Your task to perform on an android device: toggle location history Image 0: 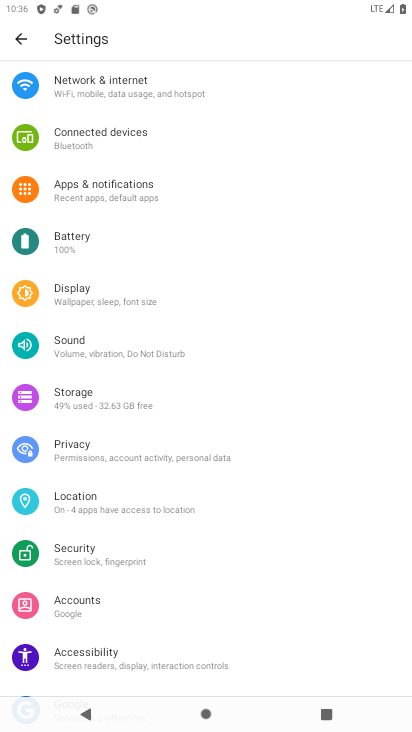
Step 0: click (90, 494)
Your task to perform on an android device: toggle location history Image 1: 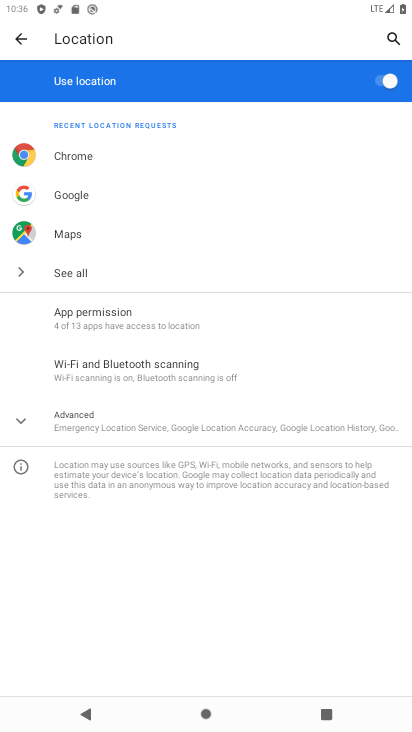
Step 1: click (91, 416)
Your task to perform on an android device: toggle location history Image 2: 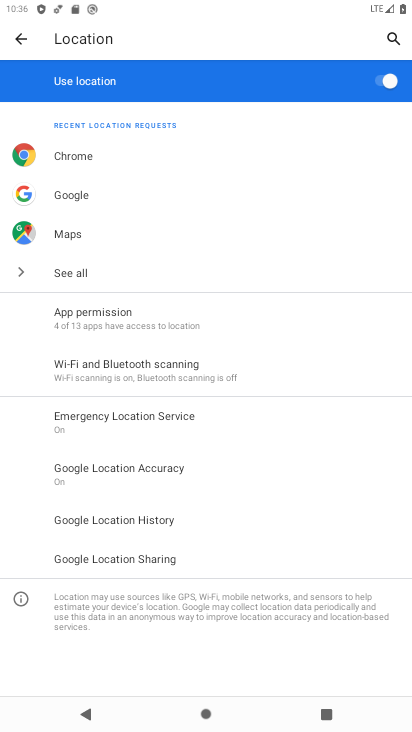
Step 2: click (168, 516)
Your task to perform on an android device: toggle location history Image 3: 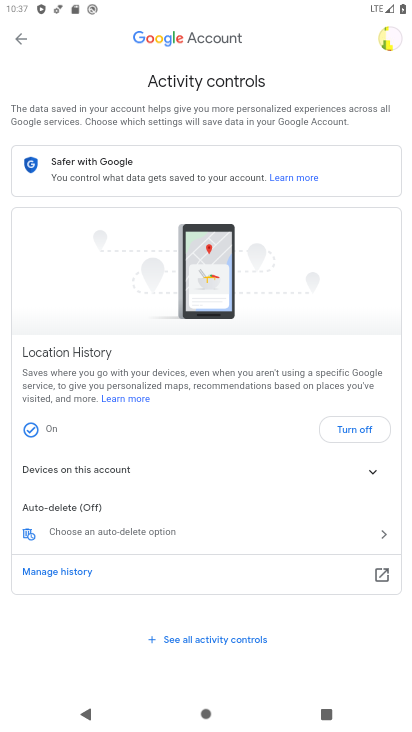
Step 3: click (339, 431)
Your task to perform on an android device: toggle location history Image 4: 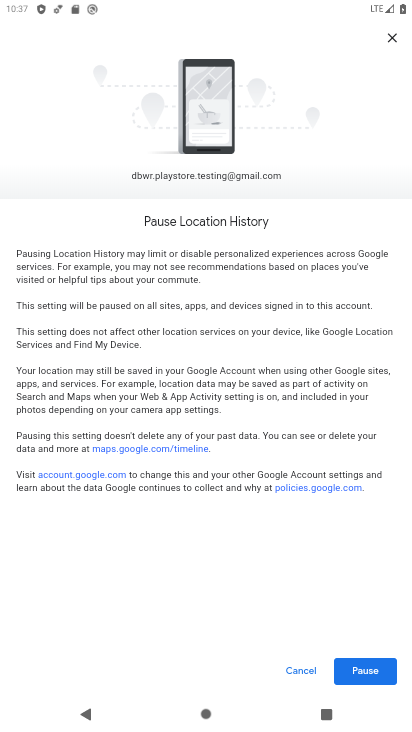
Step 4: click (360, 681)
Your task to perform on an android device: toggle location history Image 5: 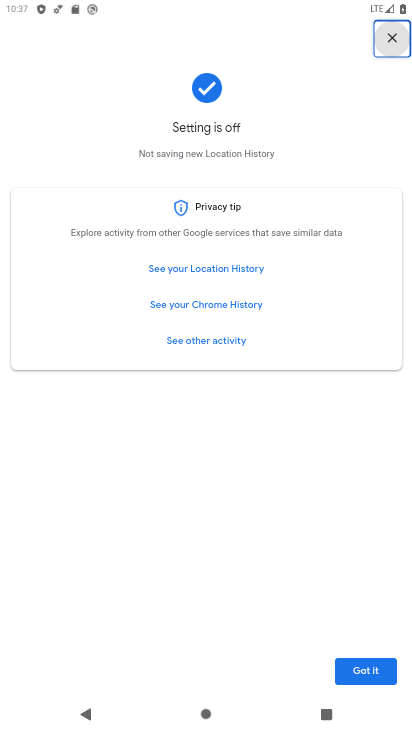
Step 5: click (360, 681)
Your task to perform on an android device: toggle location history Image 6: 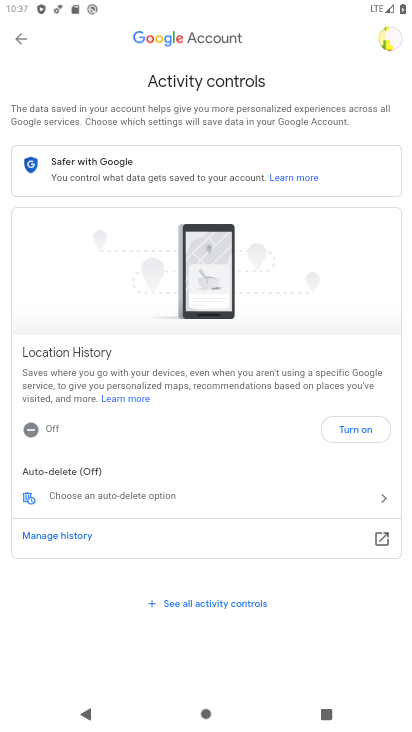
Step 6: task complete